Your task to perform on an android device: What's the weather? Image 0: 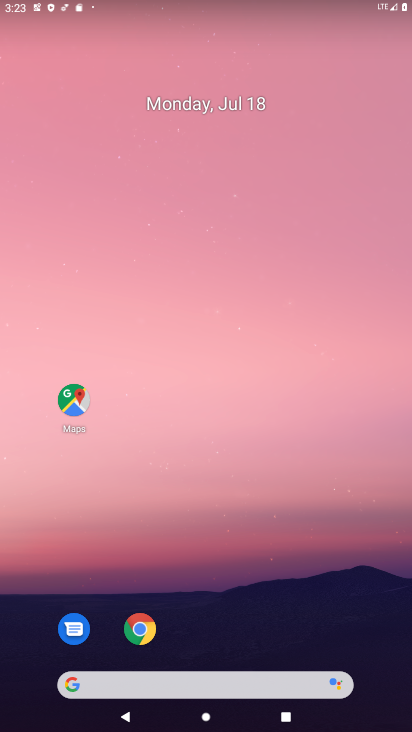
Step 0: click (206, 682)
Your task to perform on an android device: What's the weather? Image 1: 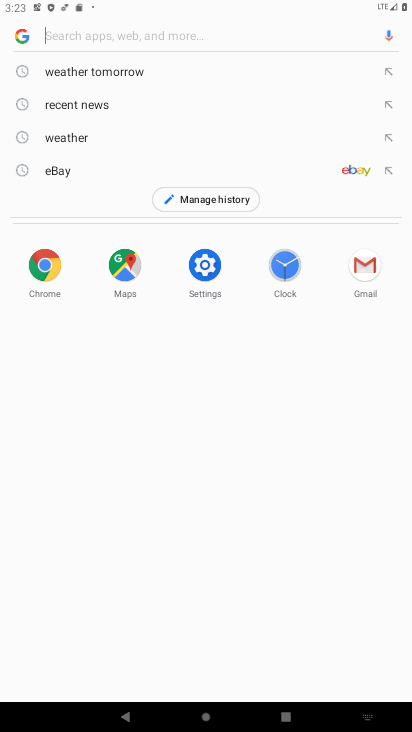
Step 1: type "weather"
Your task to perform on an android device: What's the weather? Image 2: 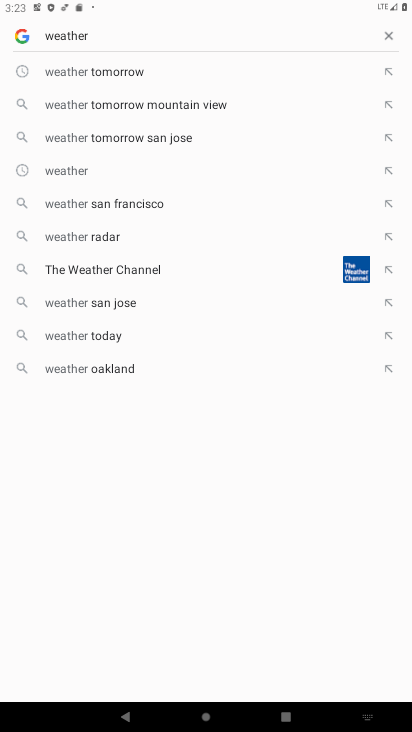
Step 2: click (81, 175)
Your task to perform on an android device: What's the weather? Image 3: 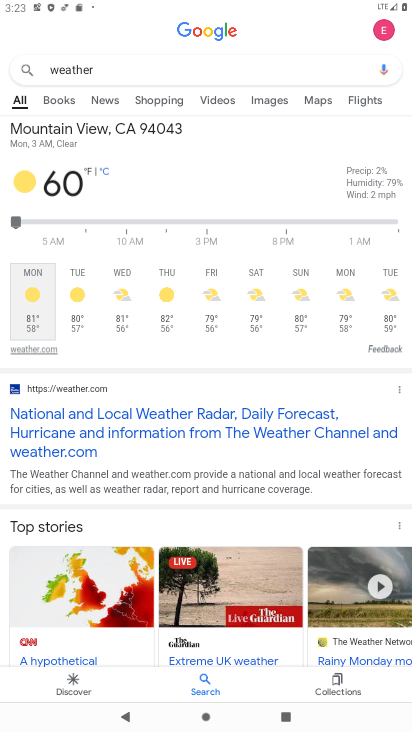
Step 3: task complete